Your task to perform on an android device: turn off translation in the chrome app Image 0: 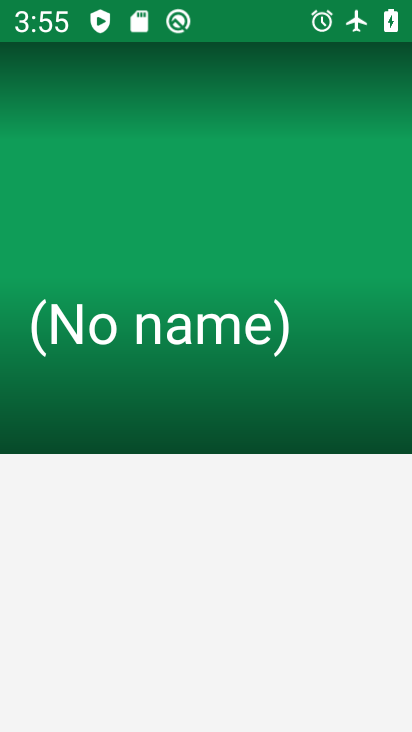
Step 0: drag from (102, 613) to (203, 240)
Your task to perform on an android device: turn off translation in the chrome app Image 1: 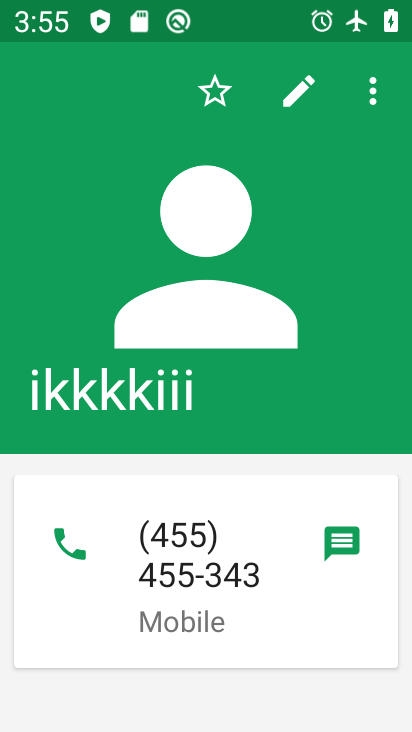
Step 1: press home button
Your task to perform on an android device: turn off translation in the chrome app Image 2: 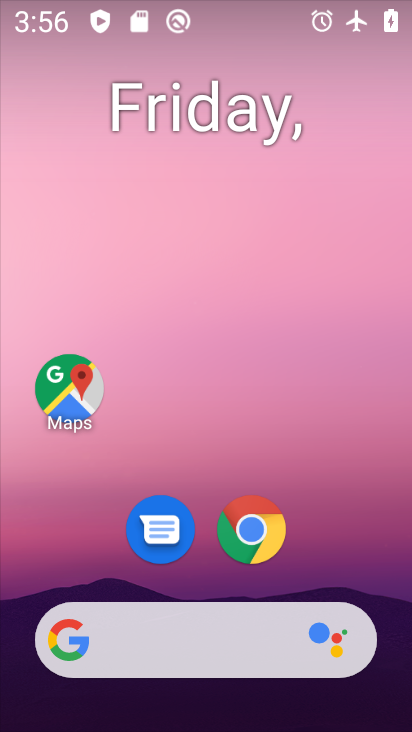
Step 2: click (267, 528)
Your task to perform on an android device: turn off translation in the chrome app Image 3: 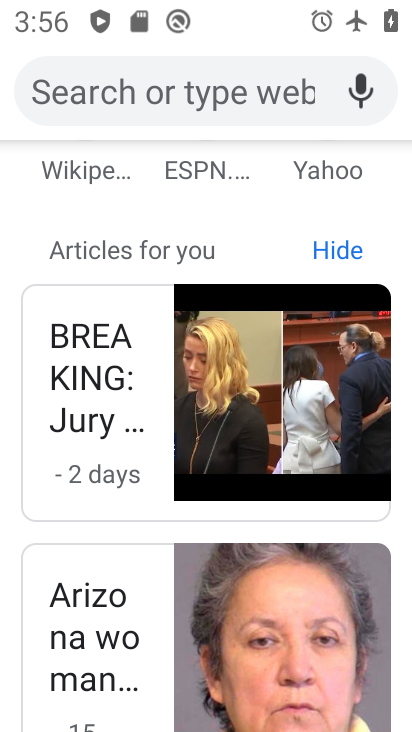
Step 3: drag from (233, 243) to (163, 669)
Your task to perform on an android device: turn off translation in the chrome app Image 4: 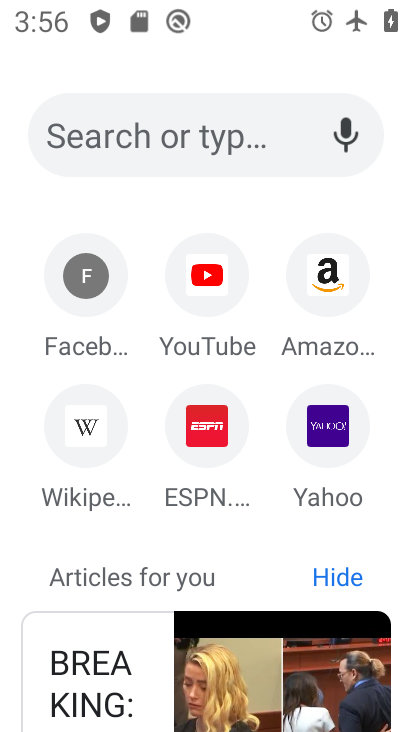
Step 4: drag from (241, 272) to (194, 556)
Your task to perform on an android device: turn off translation in the chrome app Image 5: 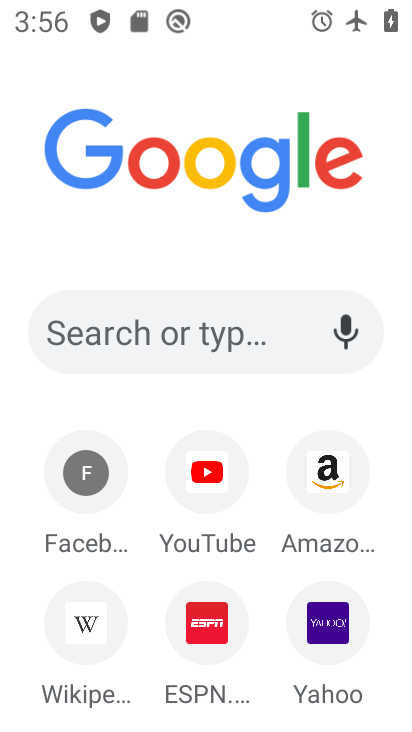
Step 5: drag from (239, 228) to (209, 555)
Your task to perform on an android device: turn off translation in the chrome app Image 6: 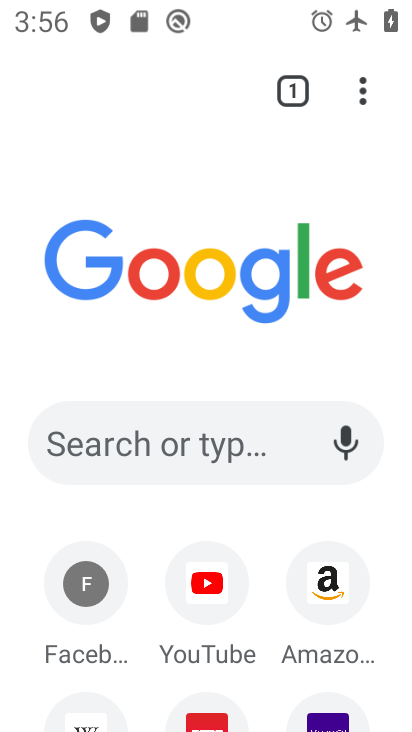
Step 6: drag from (370, 98) to (254, 571)
Your task to perform on an android device: turn off translation in the chrome app Image 7: 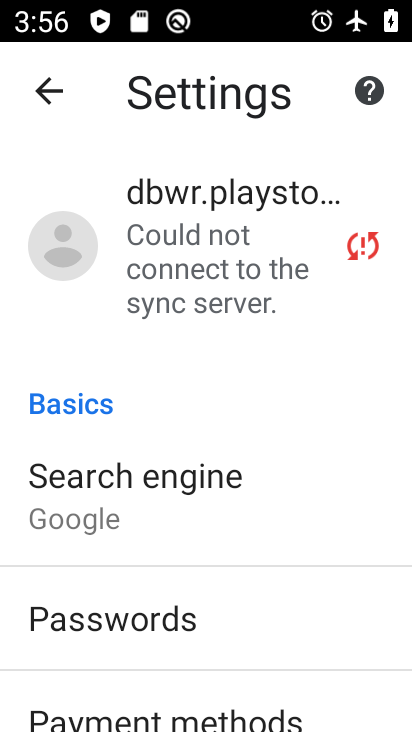
Step 7: drag from (174, 641) to (303, 200)
Your task to perform on an android device: turn off translation in the chrome app Image 8: 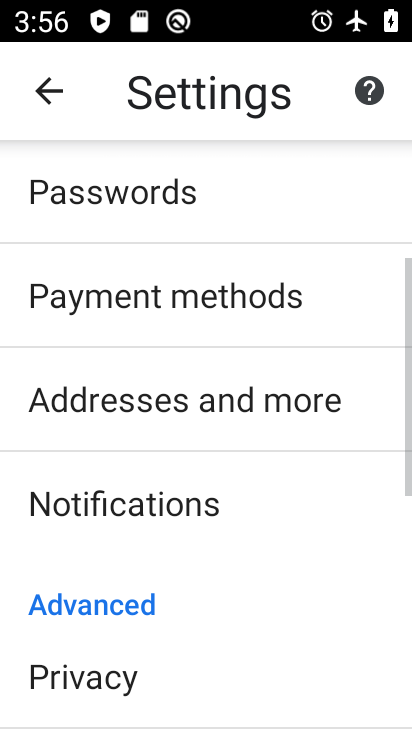
Step 8: drag from (178, 617) to (314, 231)
Your task to perform on an android device: turn off translation in the chrome app Image 9: 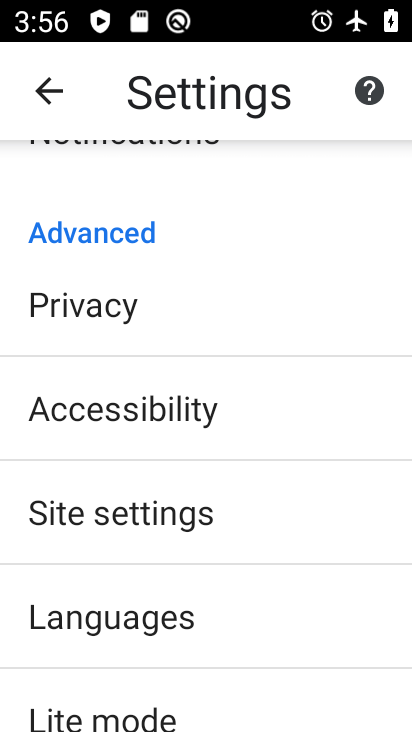
Step 9: drag from (140, 658) to (220, 446)
Your task to perform on an android device: turn off translation in the chrome app Image 10: 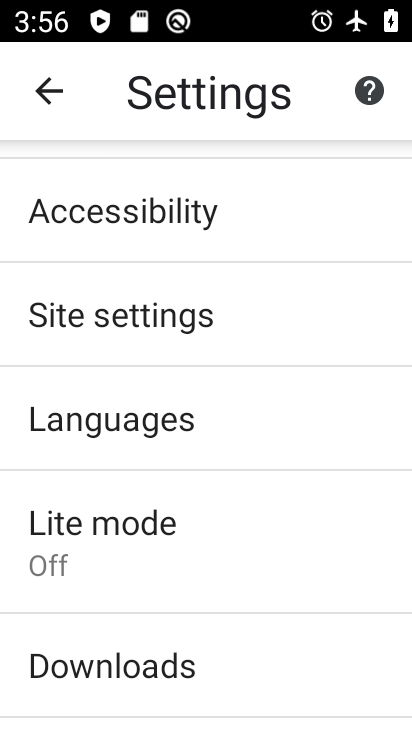
Step 10: click (171, 421)
Your task to perform on an android device: turn off translation in the chrome app Image 11: 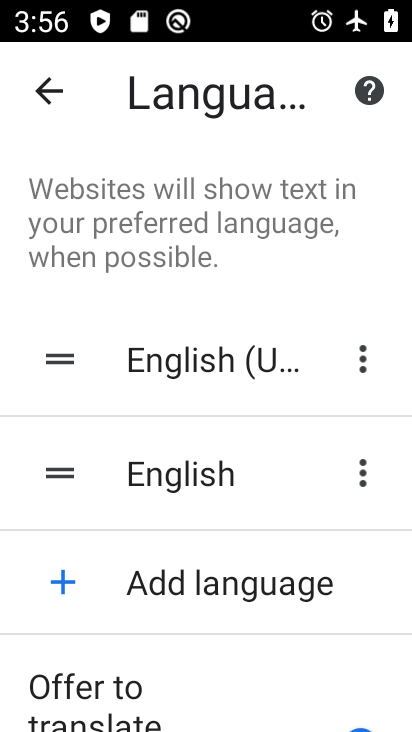
Step 11: drag from (161, 622) to (288, 226)
Your task to perform on an android device: turn off translation in the chrome app Image 12: 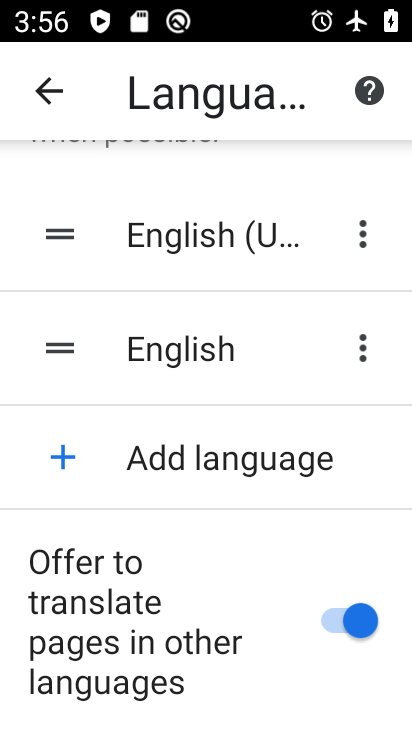
Step 12: click (340, 627)
Your task to perform on an android device: turn off translation in the chrome app Image 13: 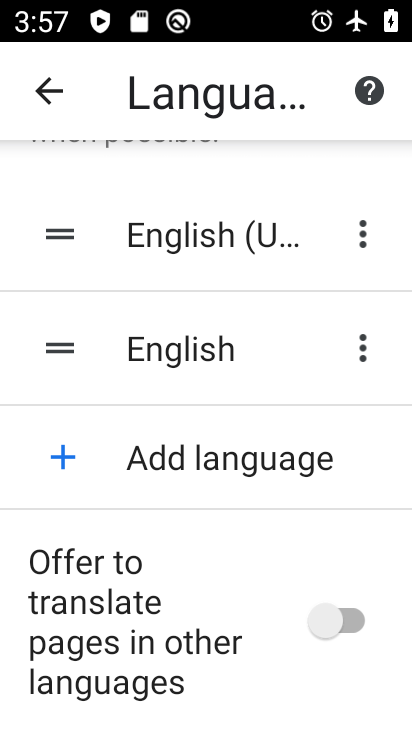
Step 13: task complete